Your task to perform on an android device: Go to Google maps Image 0: 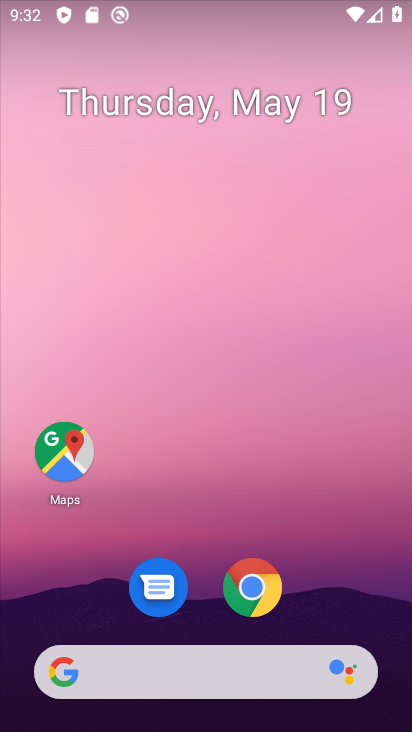
Step 0: click (68, 461)
Your task to perform on an android device: Go to Google maps Image 1: 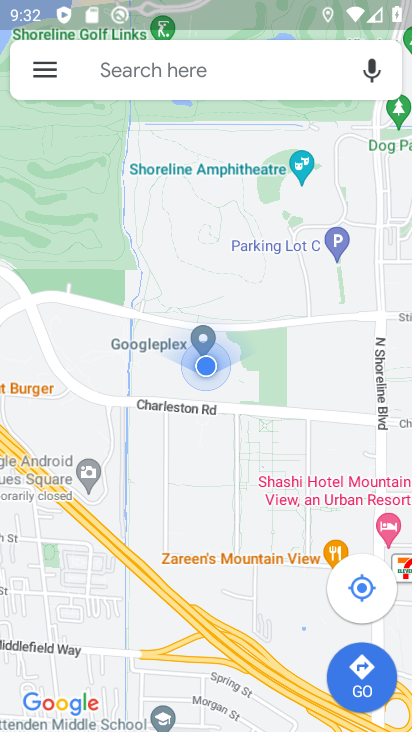
Step 1: task complete